Your task to perform on an android device: turn on translation in the chrome app Image 0: 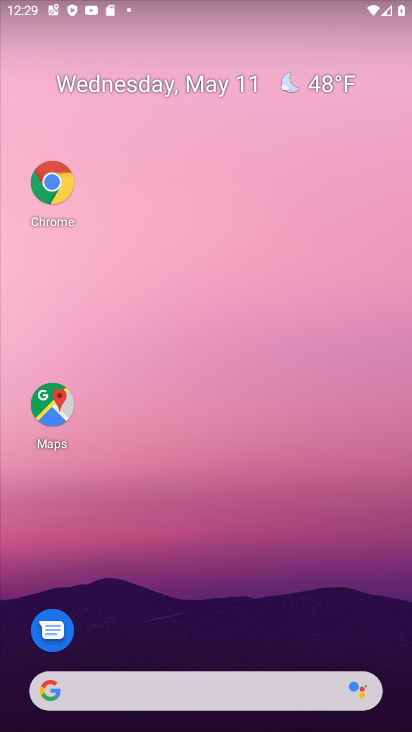
Step 0: drag from (186, 669) to (194, 15)
Your task to perform on an android device: turn on translation in the chrome app Image 1: 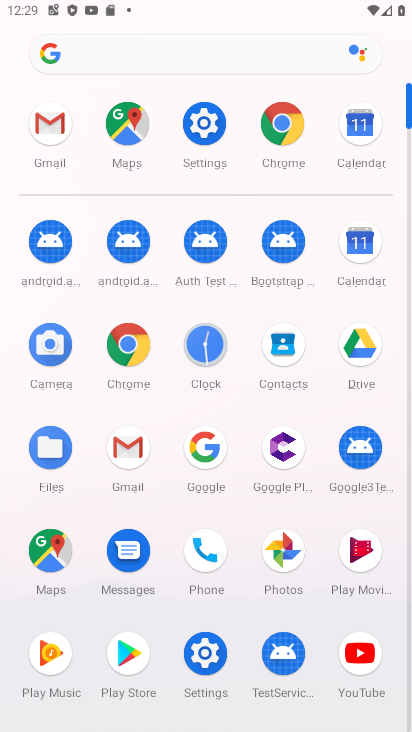
Step 1: click (134, 334)
Your task to perform on an android device: turn on translation in the chrome app Image 2: 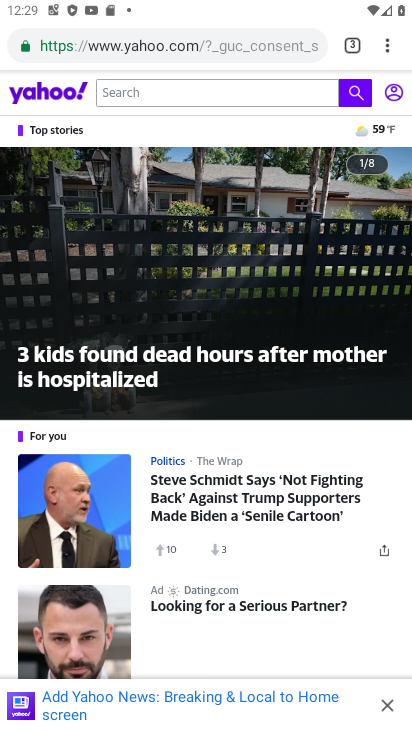
Step 2: click (387, 53)
Your task to perform on an android device: turn on translation in the chrome app Image 3: 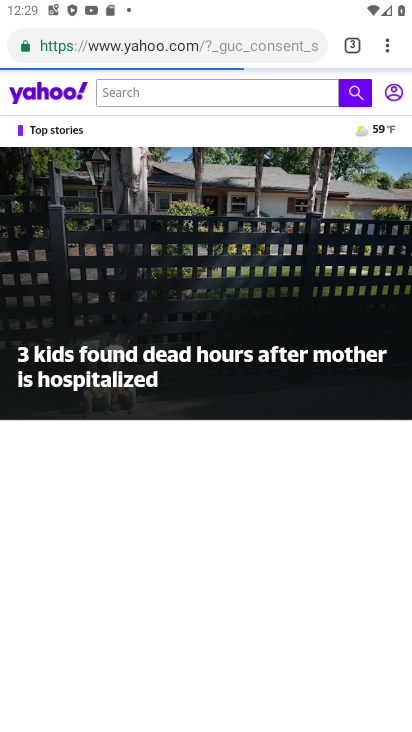
Step 3: drag from (383, 39) to (240, 533)
Your task to perform on an android device: turn on translation in the chrome app Image 4: 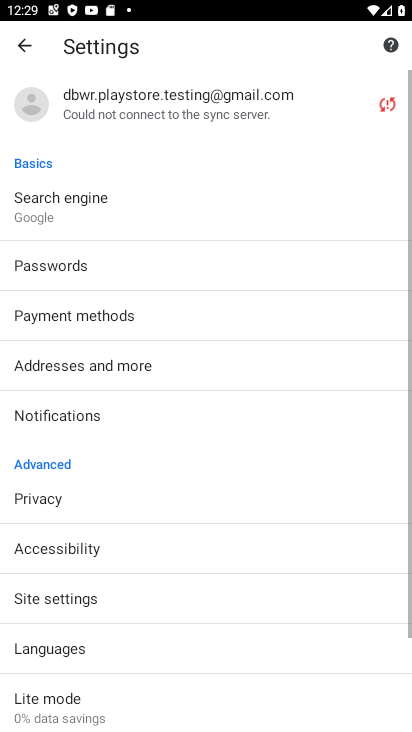
Step 4: drag from (180, 610) to (181, 347)
Your task to perform on an android device: turn on translation in the chrome app Image 5: 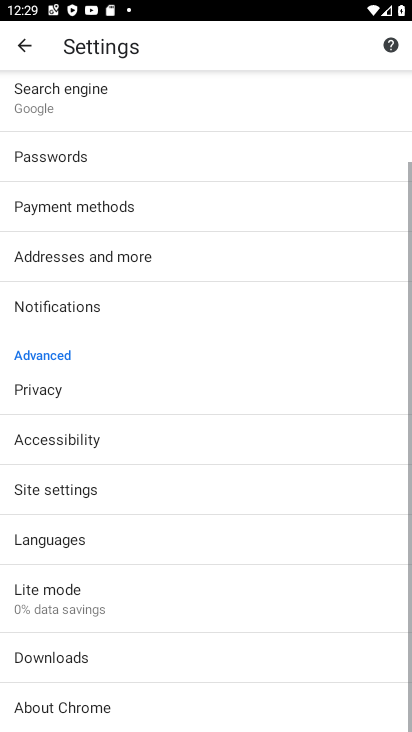
Step 5: click (67, 526)
Your task to perform on an android device: turn on translation in the chrome app Image 6: 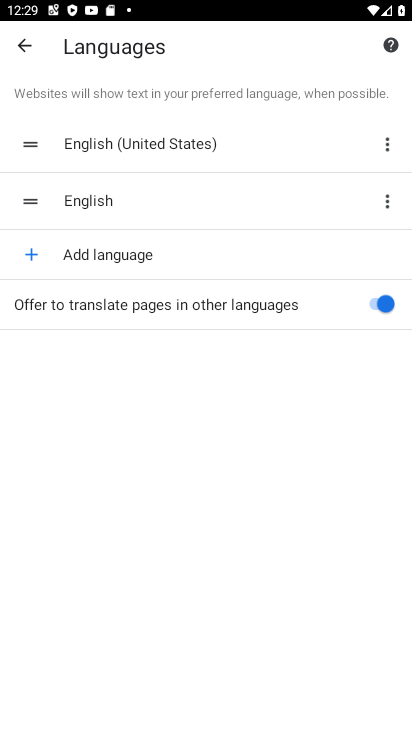
Step 6: task complete